Your task to perform on an android device: read, delete, or share a saved page in the chrome app Image 0: 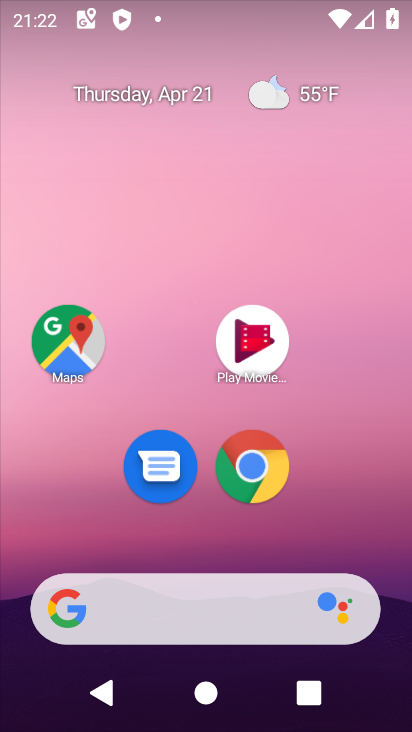
Step 0: click (267, 478)
Your task to perform on an android device: read, delete, or share a saved page in the chrome app Image 1: 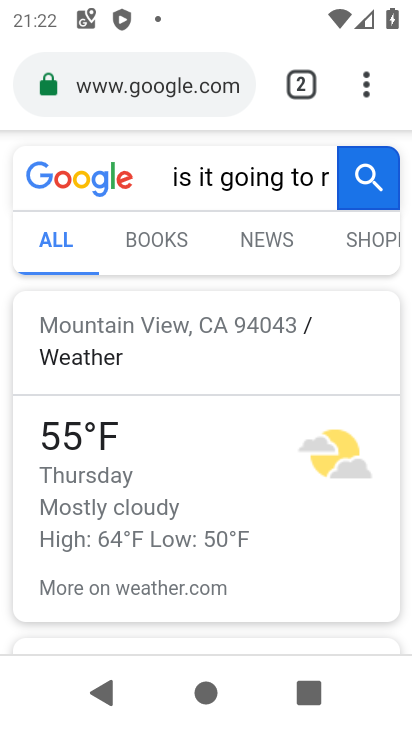
Step 1: task complete